Your task to perform on an android device: Open CNN.com Image 0: 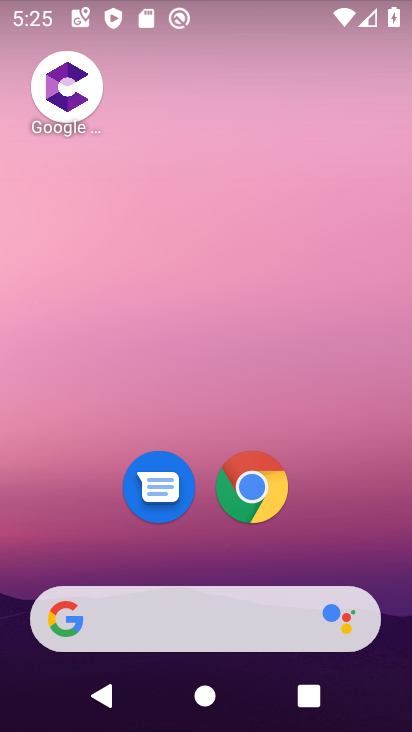
Step 0: drag from (362, 519) to (330, 115)
Your task to perform on an android device: Open CNN.com Image 1: 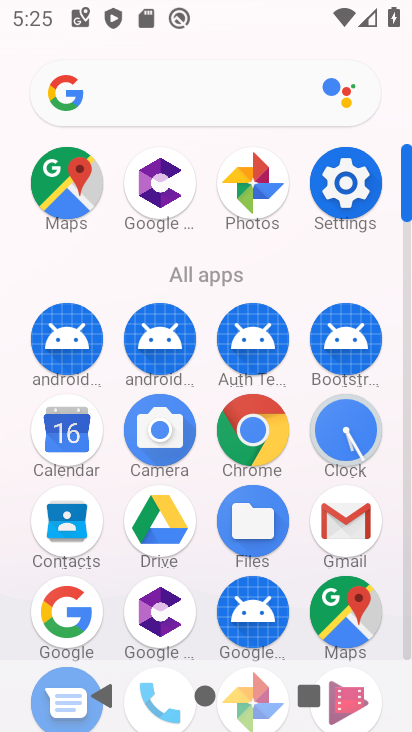
Step 1: click (255, 415)
Your task to perform on an android device: Open CNN.com Image 2: 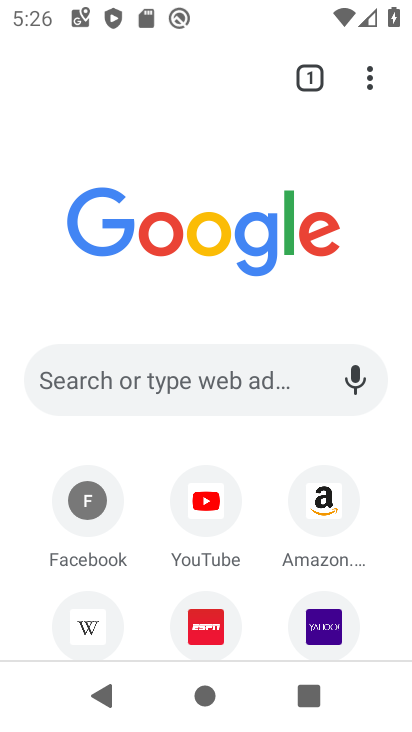
Step 2: click (235, 354)
Your task to perform on an android device: Open CNN.com Image 3: 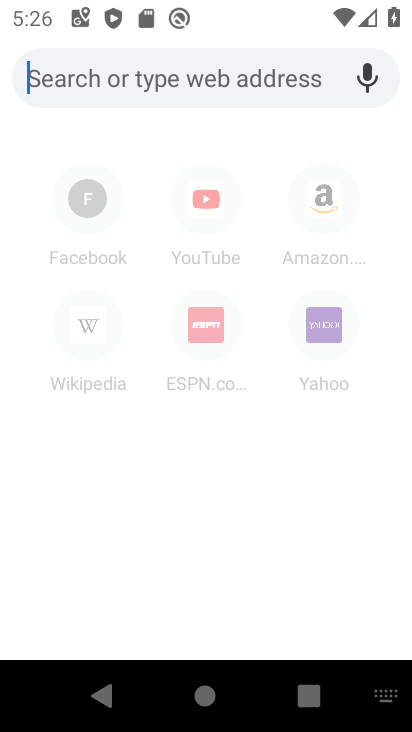
Step 3: type "cnn.com"
Your task to perform on an android device: Open CNN.com Image 4: 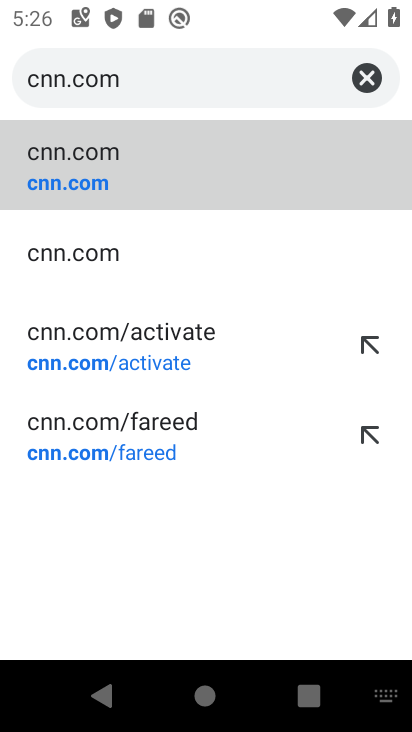
Step 4: click (81, 179)
Your task to perform on an android device: Open CNN.com Image 5: 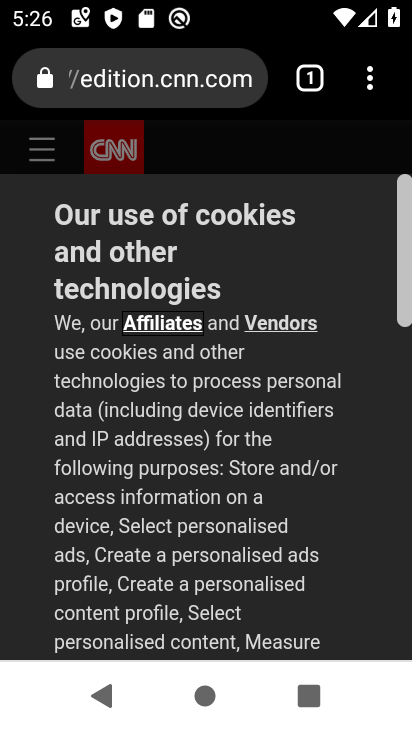
Step 5: task complete